Your task to perform on an android device: see sites visited before in the chrome app Image 0: 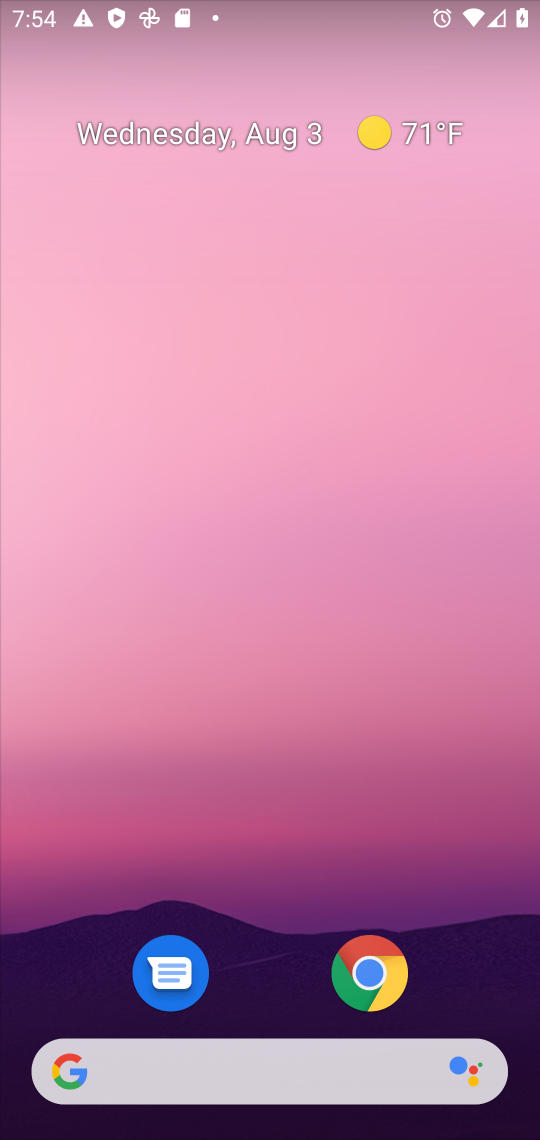
Step 0: click (378, 962)
Your task to perform on an android device: see sites visited before in the chrome app Image 1: 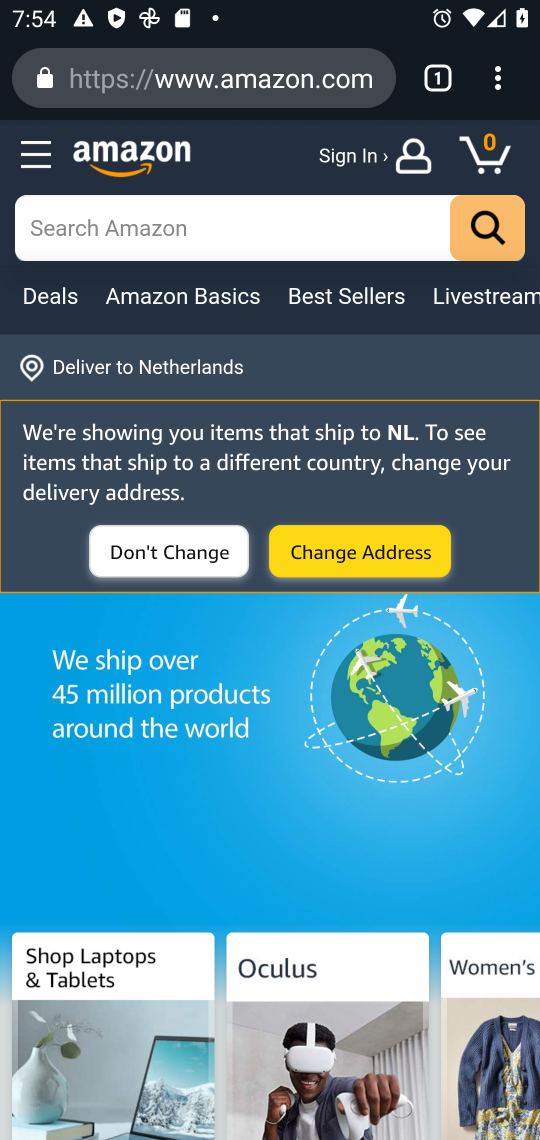
Step 1: click (499, 69)
Your task to perform on an android device: see sites visited before in the chrome app Image 2: 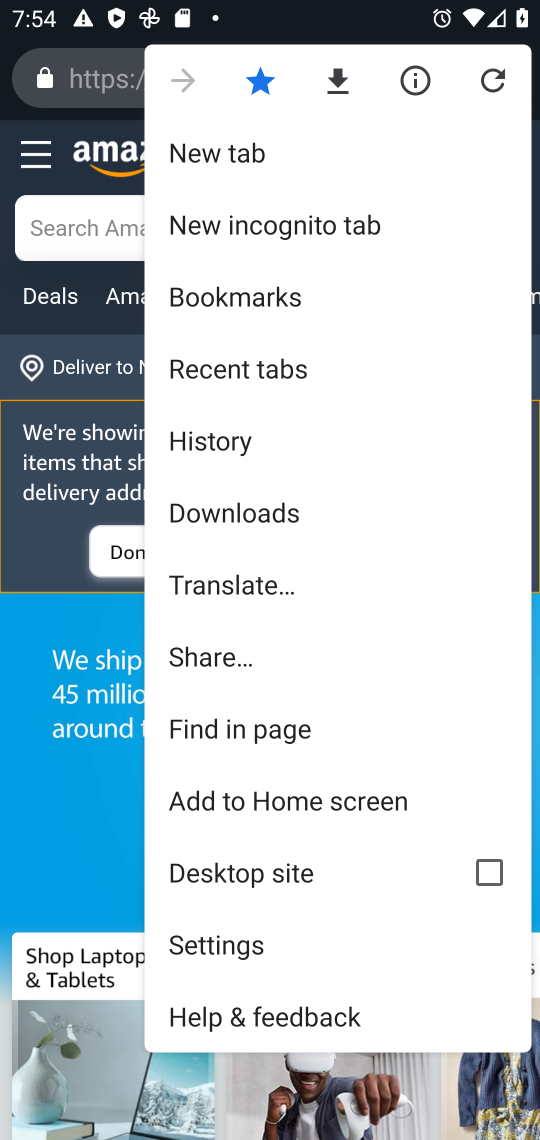
Step 2: click (235, 440)
Your task to perform on an android device: see sites visited before in the chrome app Image 3: 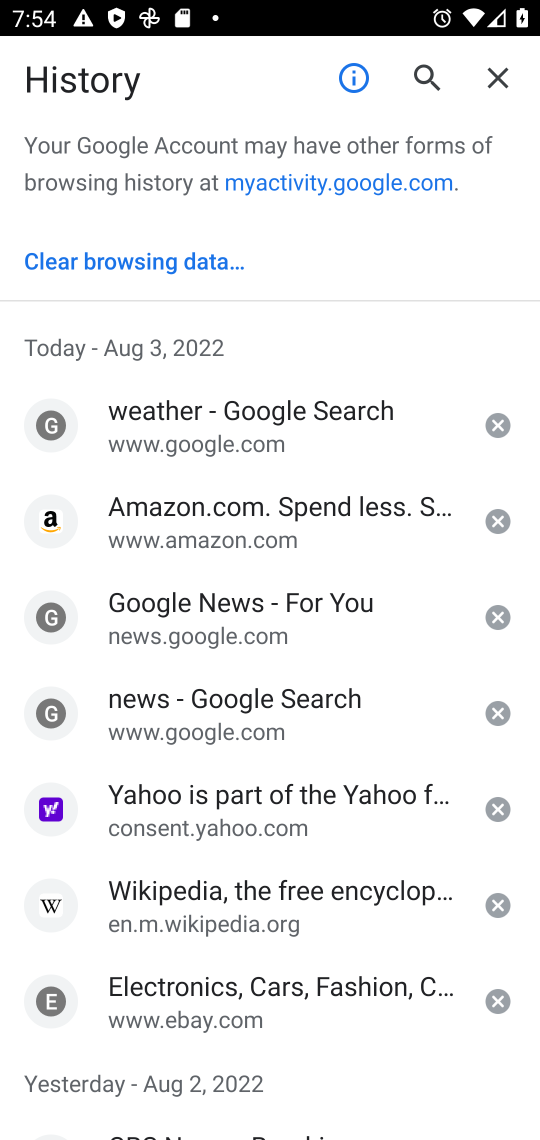
Step 3: task complete